Your task to perform on an android device: Go to settings Image 0: 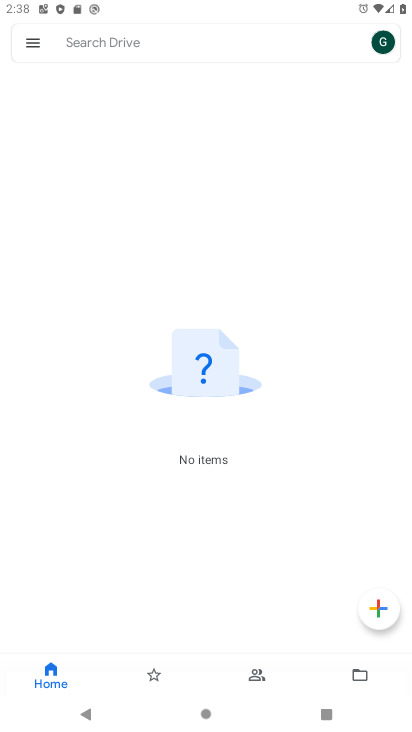
Step 0: press home button
Your task to perform on an android device: Go to settings Image 1: 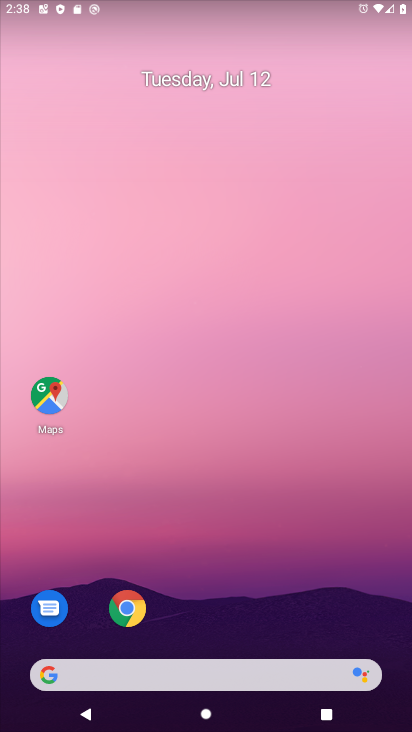
Step 1: drag from (350, 561) to (214, 89)
Your task to perform on an android device: Go to settings Image 2: 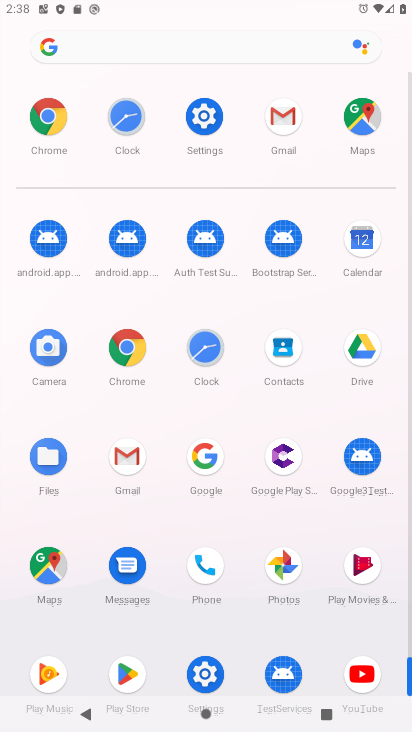
Step 2: click (210, 119)
Your task to perform on an android device: Go to settings Image 3: 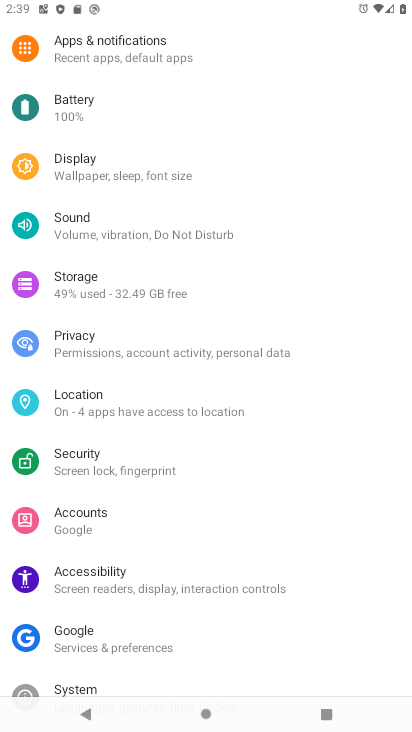
Step 3: task complete